Your task to perform on an android device: turn on javascript in the chrome app Image 0: 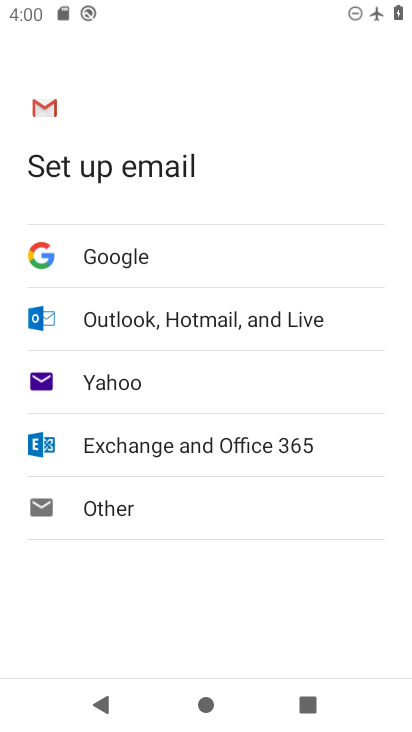
Step 0: press home button
Your task to perform on an android device: turn on javascript in the chrome app Image 1: 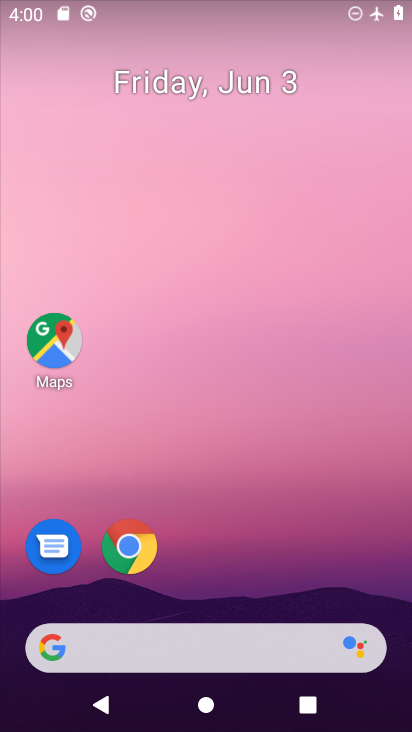
Step 1: click (135, 543)
Your task to perform on an android device: turn on javascript in the chrome app Image 2: 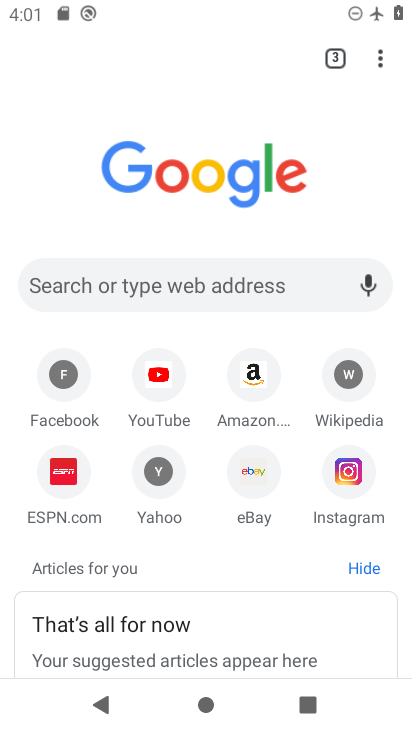
Step 2: click (375, 59)
Your task to perform on an android device: turn on javascript in the chrome app Image 3: 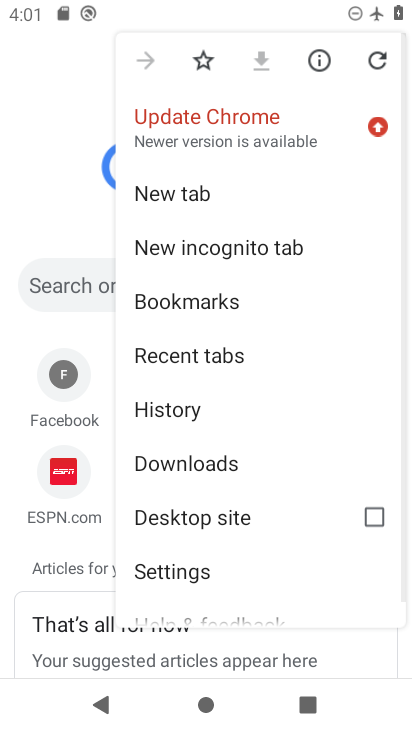
Step 3: drag from (274, 545) to (301, 260)
Your task to perform on an android device: turn on javascript in the chrome app Image 4: 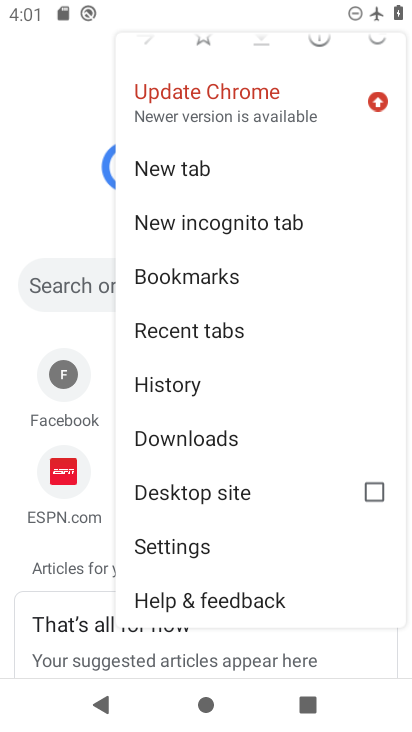
Step 4: click (214, 550)
Your task to perform on an android device: turn on javascript in the chrome app Image 5: 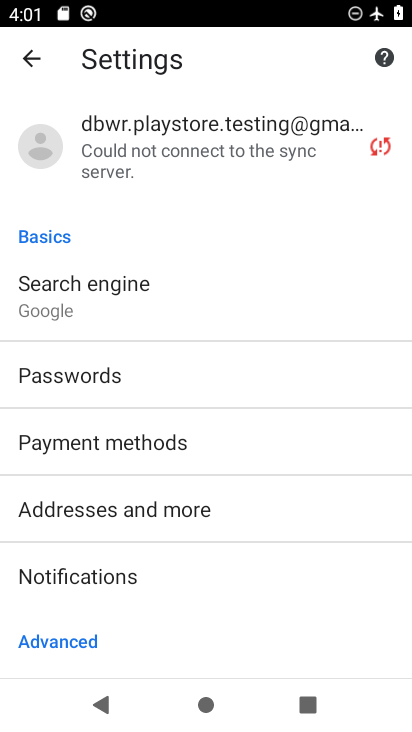
Step 5: drag from (214, 549) to (224, 322)
Your task to perform on an android device: turn on javascript in the chrome app Image 6: 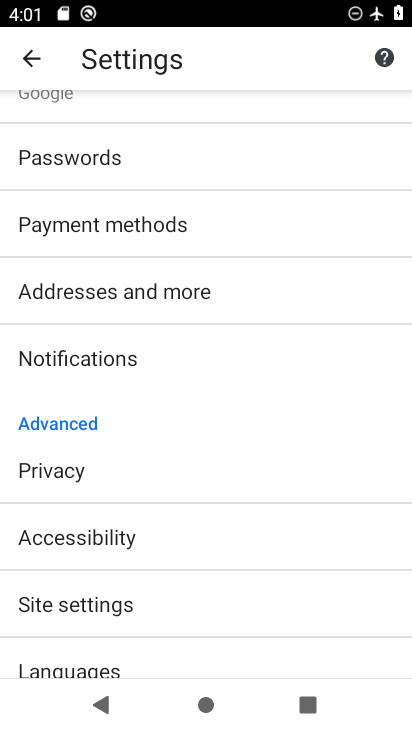
Step 6: click (187, 605)
Your task to perform on an android device: turn on javascript in the chrome app Image 7: 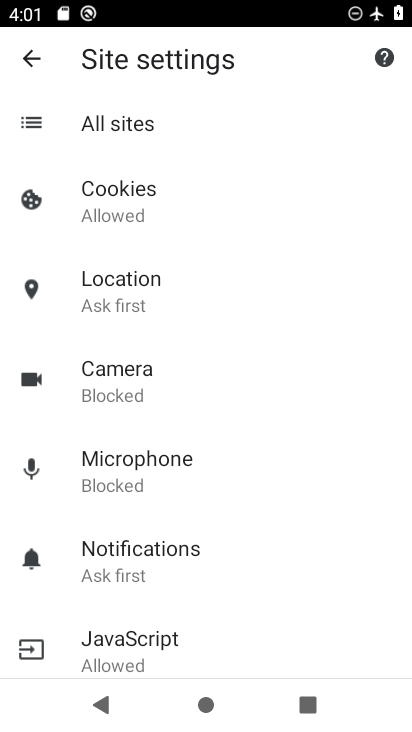
Step 7: click (217, 646)
Your task to perform on an android device: turn on javascript in the chrome app Image 8: 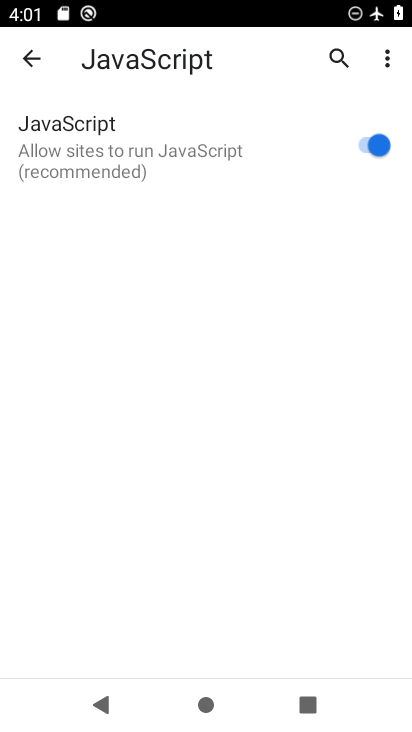
Step 8: task complete